Your task to perform on an android device: install app "Google Play services" Image 0: 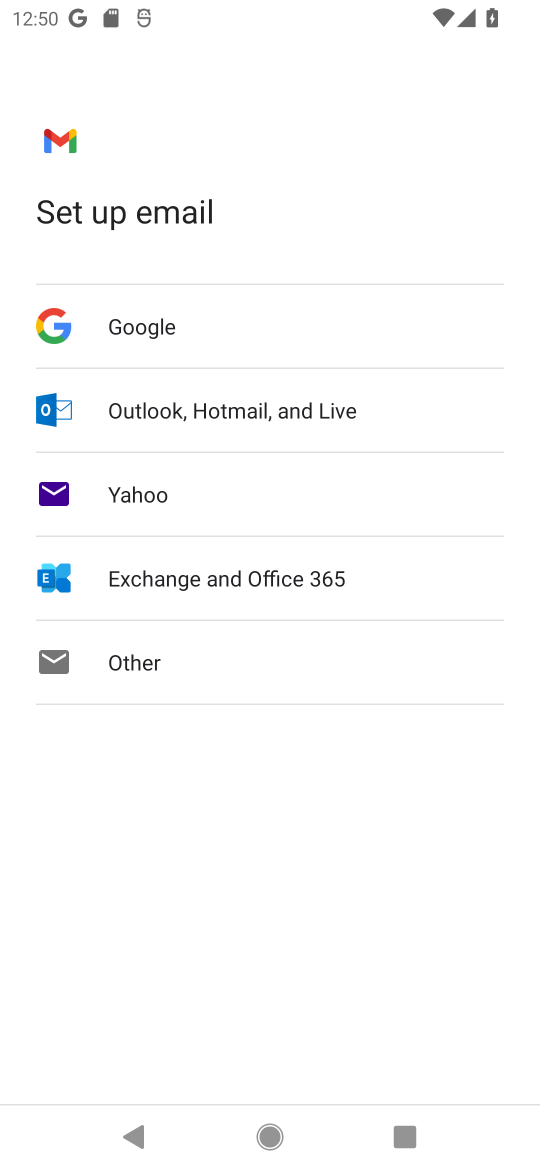
Step 0: press back button
Your task to perform on an android device: install app "Google Play services" Image 1: 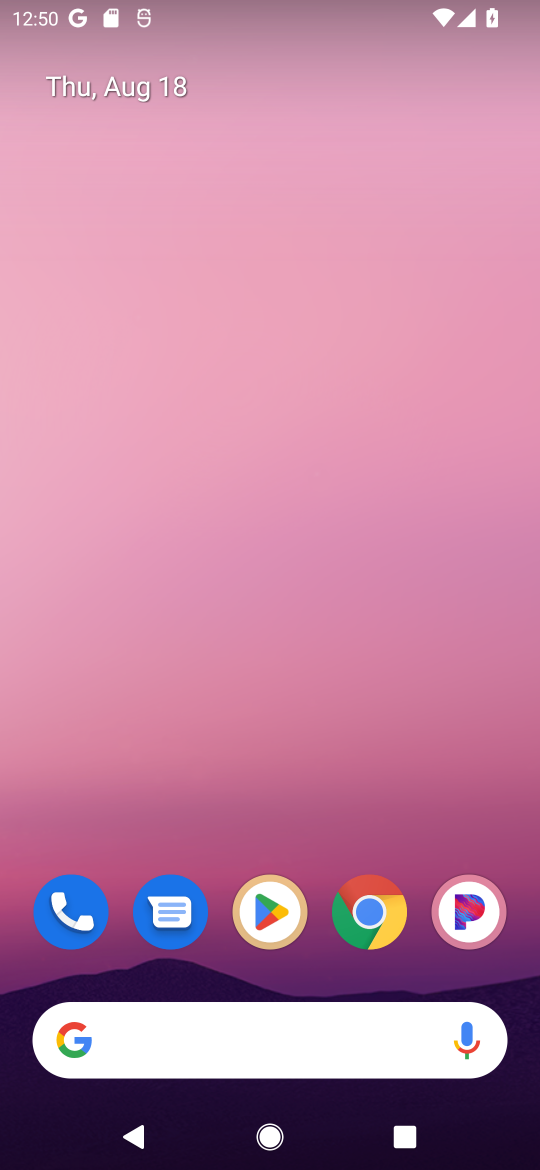
Step 1: click (279, 917)
Your task to perform on an android device: install app "Google Play services" Image 2: 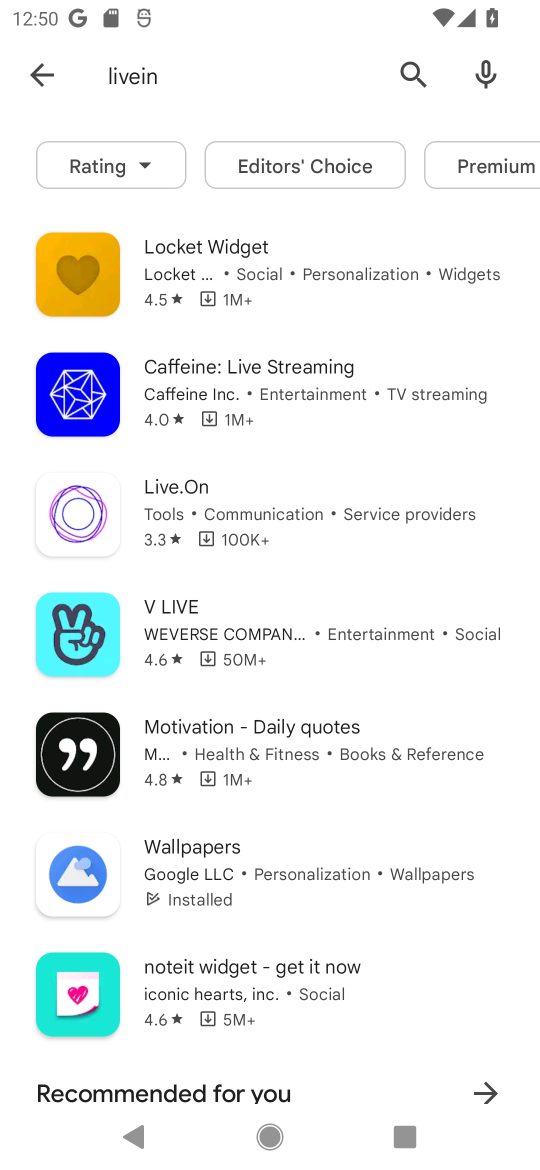
Step 2: click (415, 67)
Your task to perform on an android device: install app "Google Play services" Image 3: 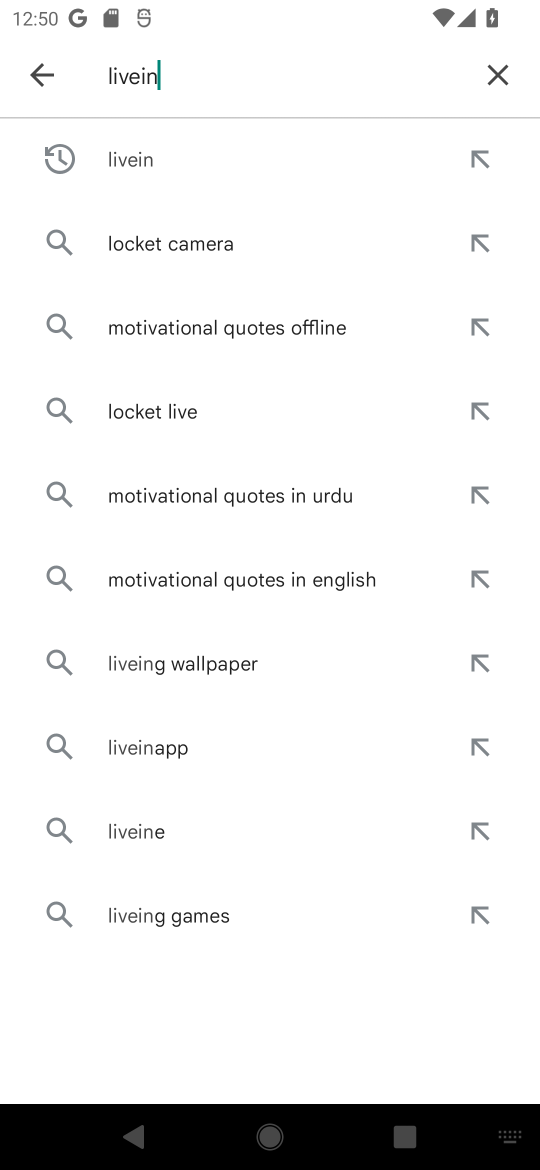
Step 3: click (486, 68)
Your task to perform on an android device: install app "Google Play services" Image 4: 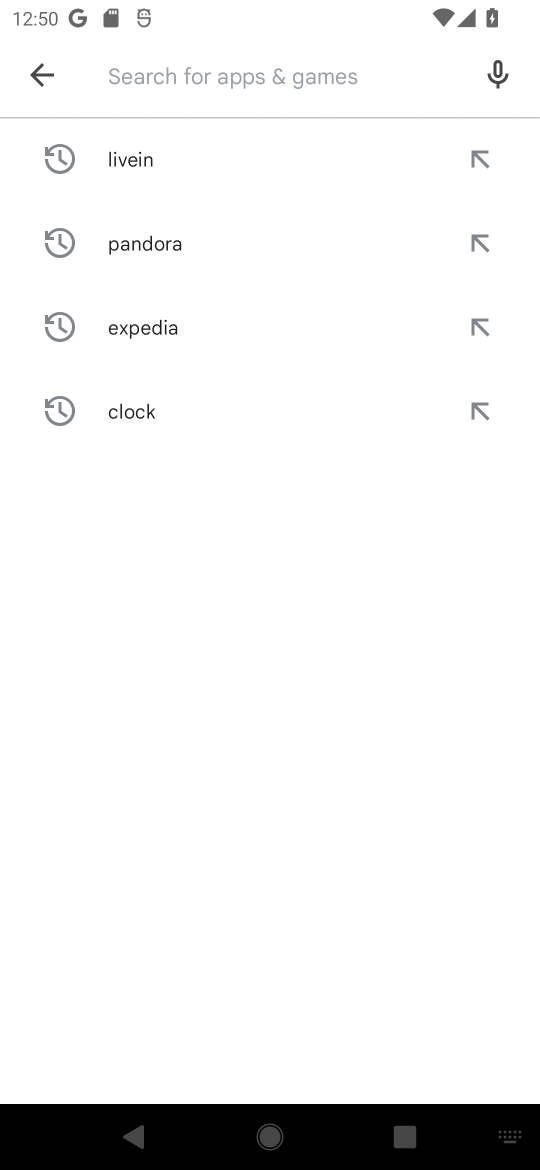
Step 4: click (122, 84)
Your task to perform on an android device: install app "Google Play services" Image 5: 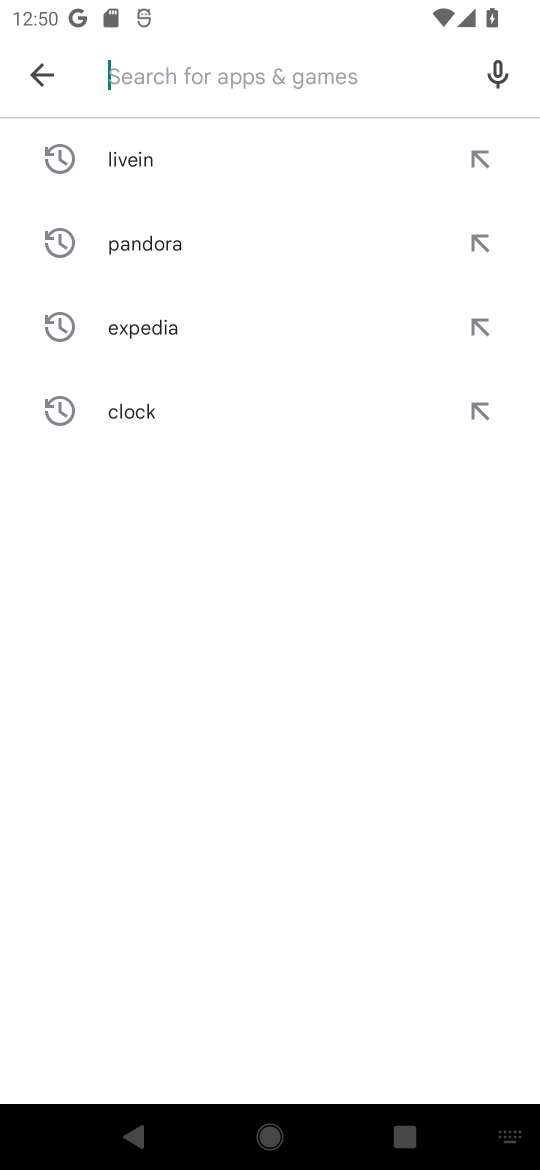
Step 5: type "Google Play services"
Your task to perform on an android device: install app "Google Play services" Image 6: 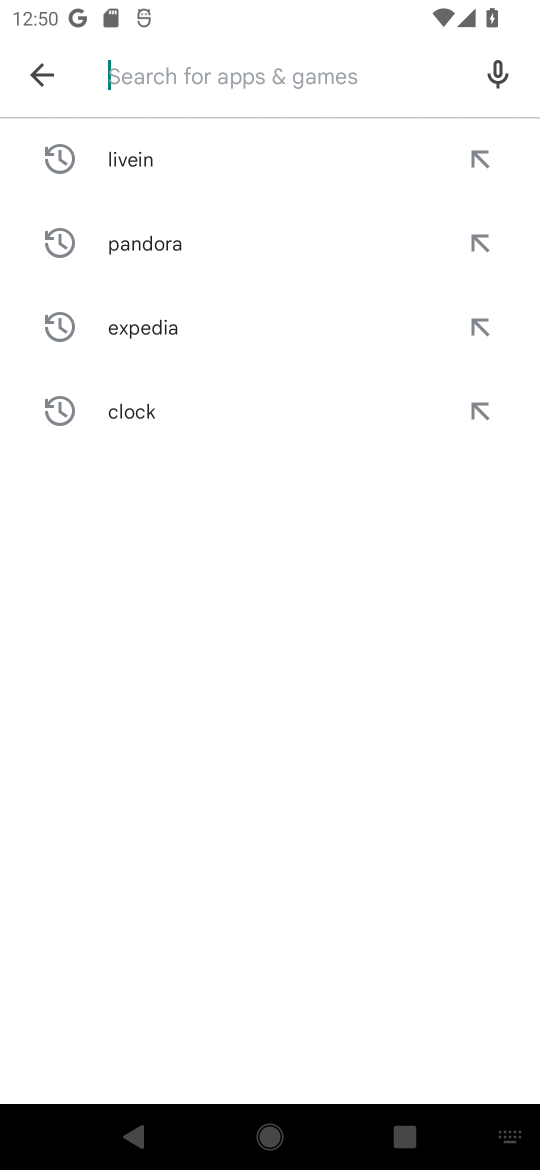
Step 6: click (255, 698)
Your task to perform on an android device: install app "Google Play services" Image 7: 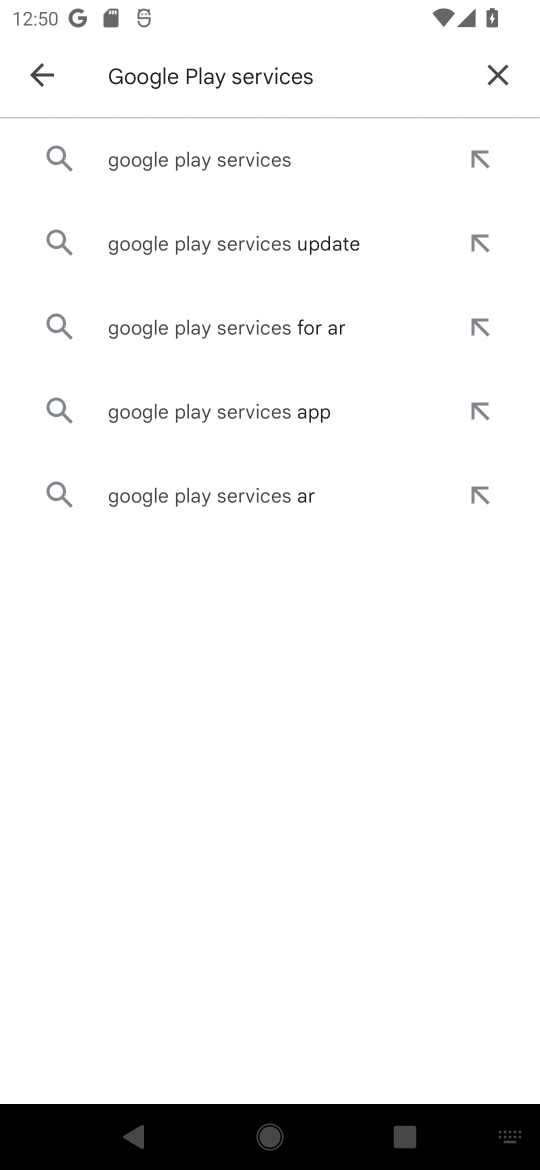
Step 7: click (252, 154)
Your task to perform on an android device: install app "Google Play services" Image 8: 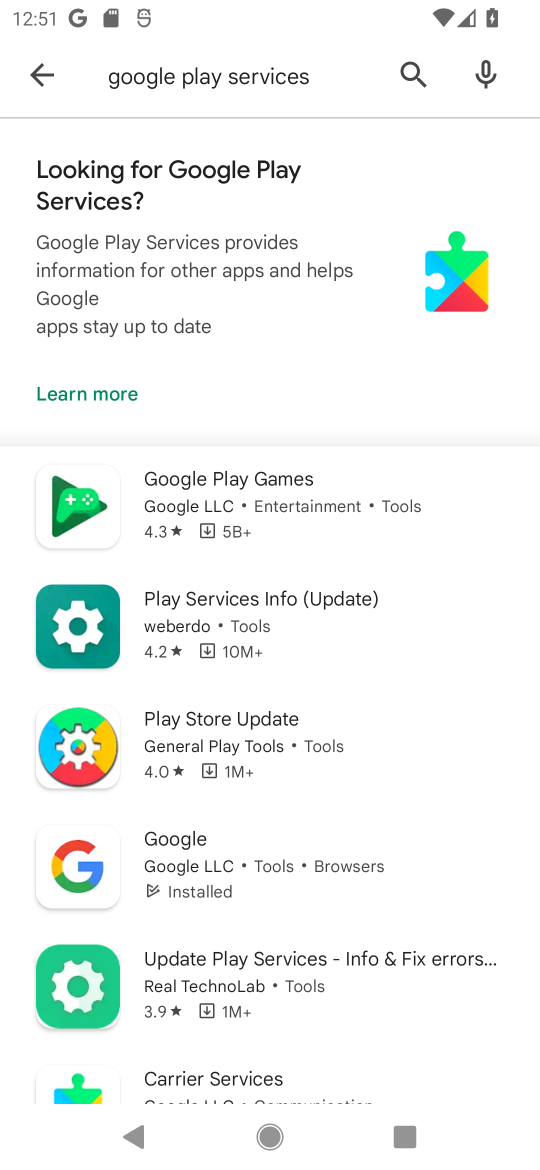
Step 8: task complete